Your task to perform on an android device: Go to Google Image 0: 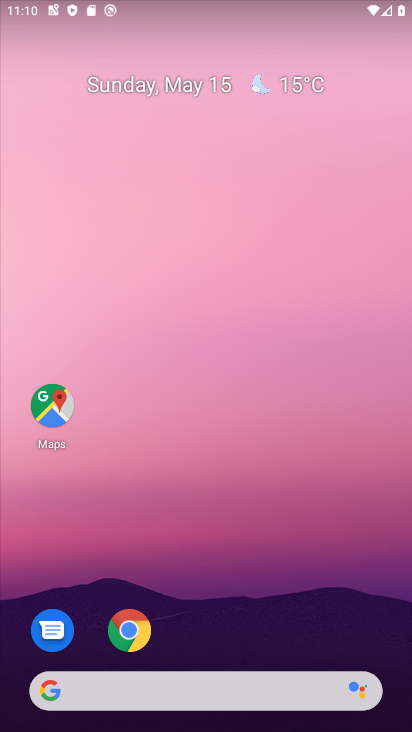
Step 0: click (210, 250)
Your task to perform on an android device: Go to Google Image 1: 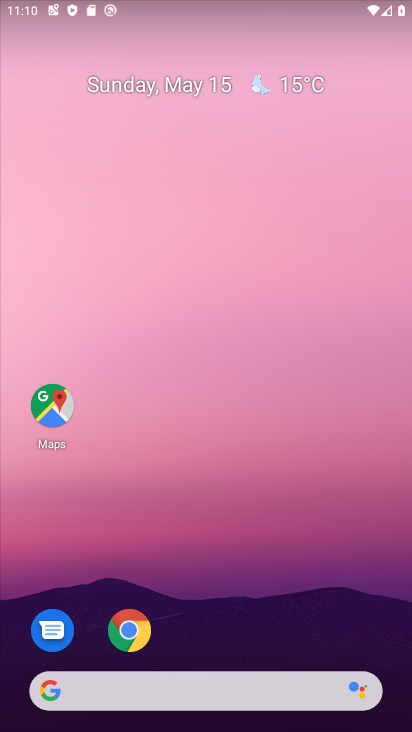
Step 1: drag from (242, 719) to (251, 32)
Your task to perform on an android device: Go to Google Image 2: 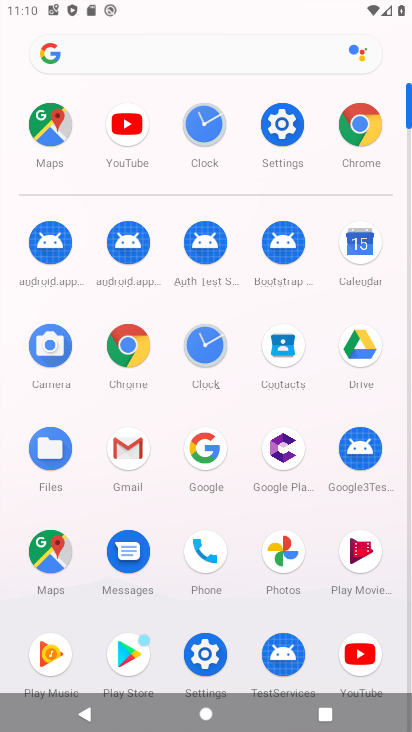
Step 2: click (204, 448)
Your task to perform on an android device: Go to Google Image 3: 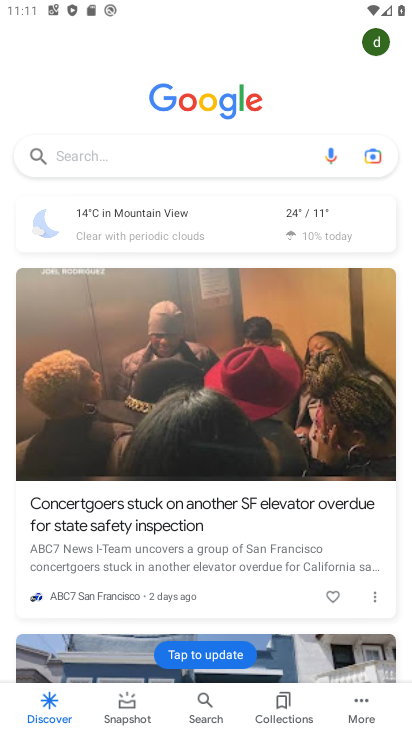
Step 3: task complete